Your task to perform on an android device: Open Chrome and go to settings Image 0: 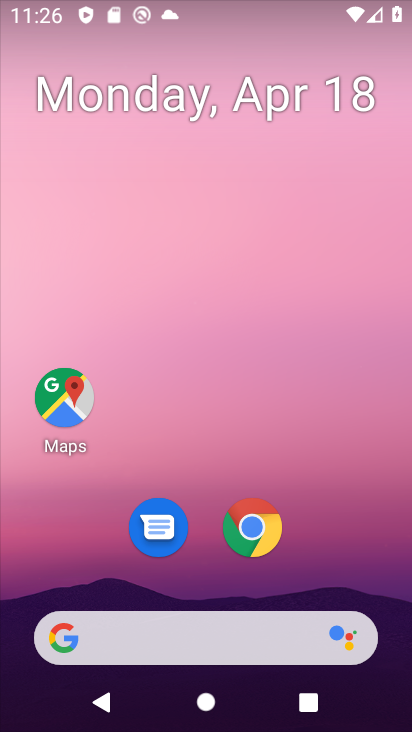
Step 0: click (251, 532)
Your task to perform on an android device: Open Chrome and go to settings Image 1: 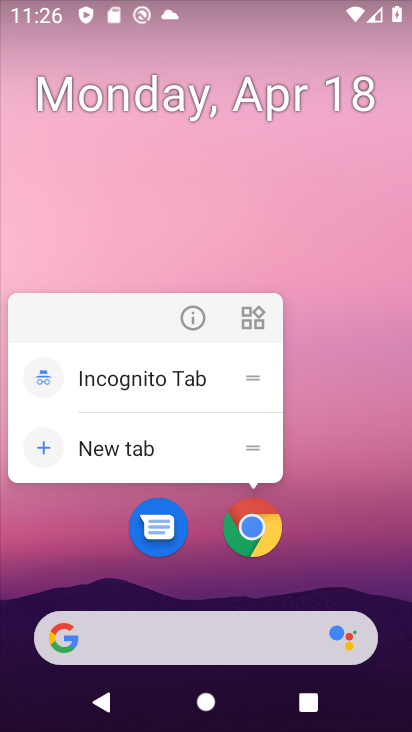
Step 1: click (251, 532)
Your task to perform on an android device: Open Chrome and go to settings Image 2: 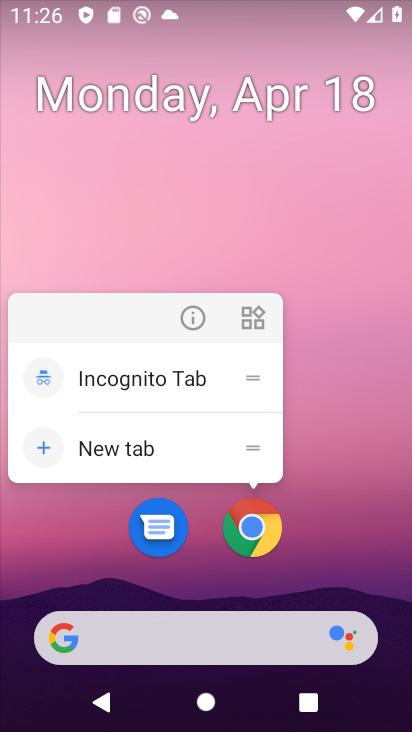
Step 2: click (251, 532)
Your task to perform on an android device: Open Chrome and go to settings Image 3: 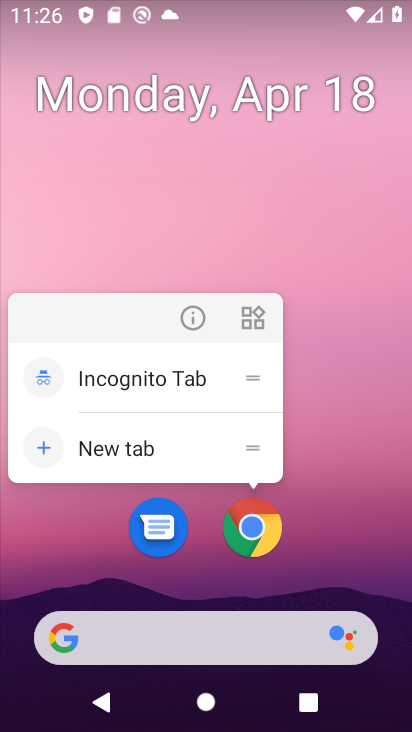
Step 3: click (251, 532)
Your task to perform on an android device: Open Chrome and go to settings Image 4: 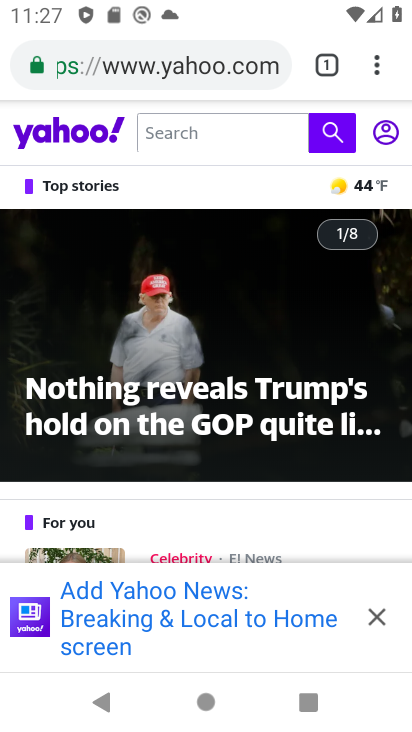
Step 4: click (381, 61)
Your task to perform on an android device: Open Chrome and go to settings Image 5: 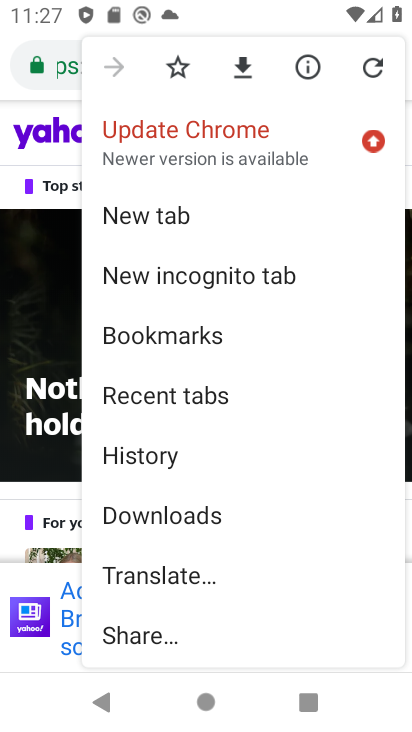
Step 5: drag from (171, 574) to (316, 170)
Your task to perform on an android device: Open Chrome and go to settings Image 6: 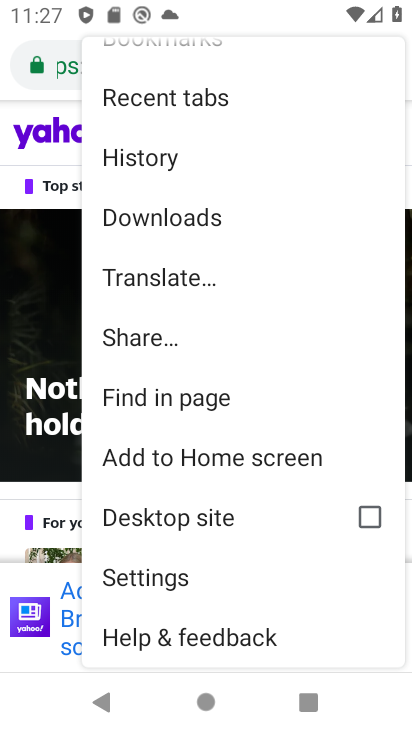
Step 6: click (123, 584)
Your task to perform on an android device: Open Chrome and go to settings Image 7: 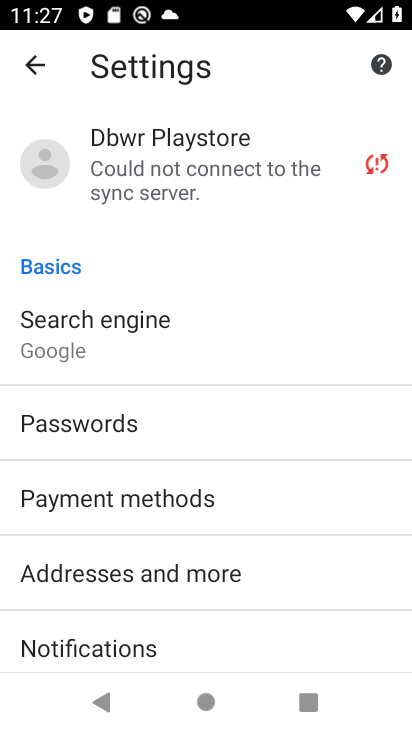
Step 7: task complete